Your task to perform on an android device: snooze an email in the gmail app Image 0: 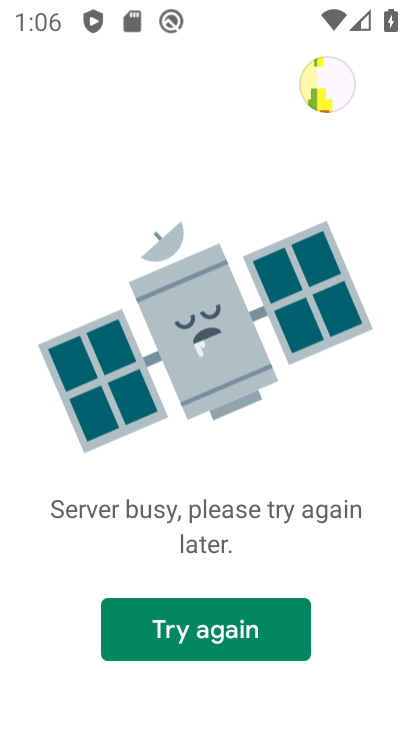
Step 0: press home button
Your task to perform on an android device: snooze an email in the gmail app Image 1: 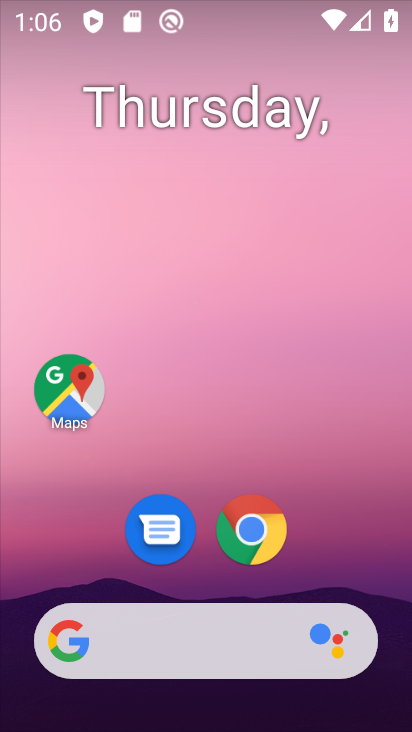
Step 1: drag from (201, 717) to (201, 120)
Your task to perform on an android device: snooze an email in the gmail app Image 2: 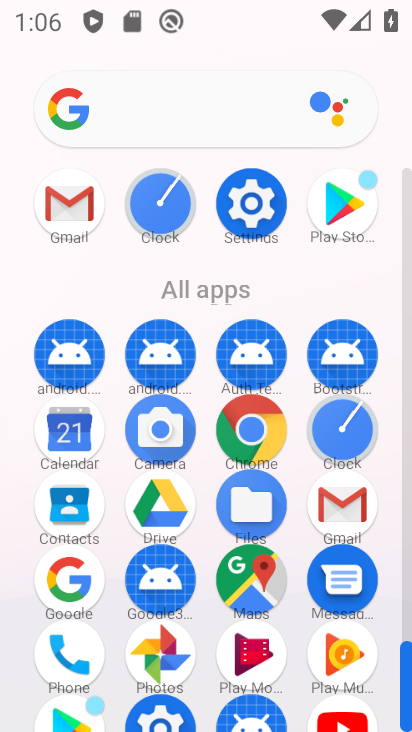
Step 2: click (69, 210)
Your task to perform on an android device: snooze an email in the gmail app Image 3: 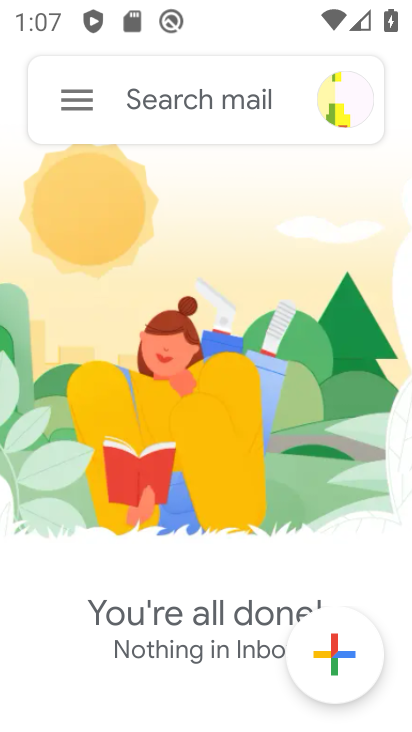
Step 3: task complete